Your task to perform on an android device: Open settings on Google Maps Image 0: 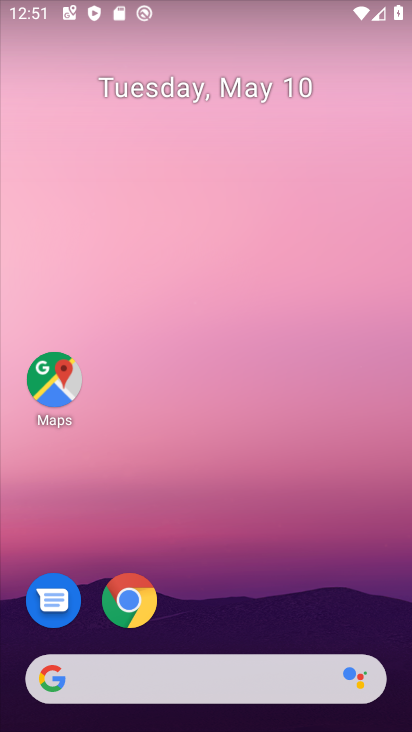
Step 0: click (60, 379)
Your task to perform on an android device: Open settings on Google Maps Image 1: 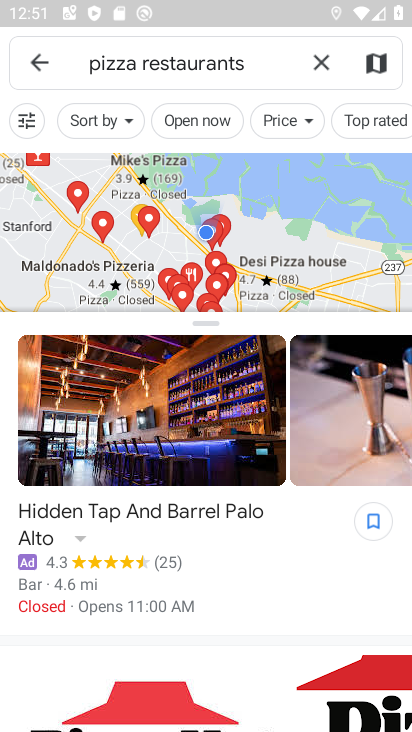
Step 1: click (137, 305)
Your task to perform on an android device: Open settings on Google Maps Image 2: 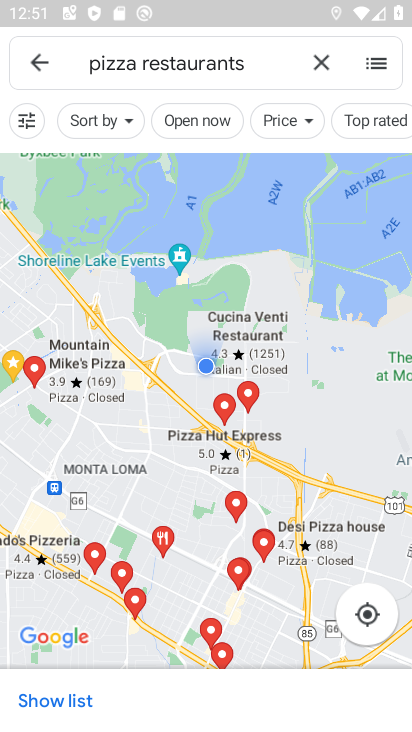
Step 2: click (49, 55)
Your task to perform on an android device: Open settings on Google Maps Image 3: 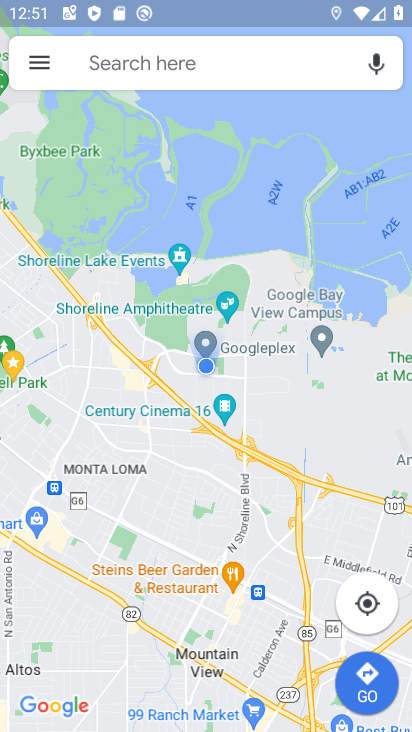
Step 3: click (49, 55)
Your task to perform on an android device: Open settings on Google Maps Image 4: 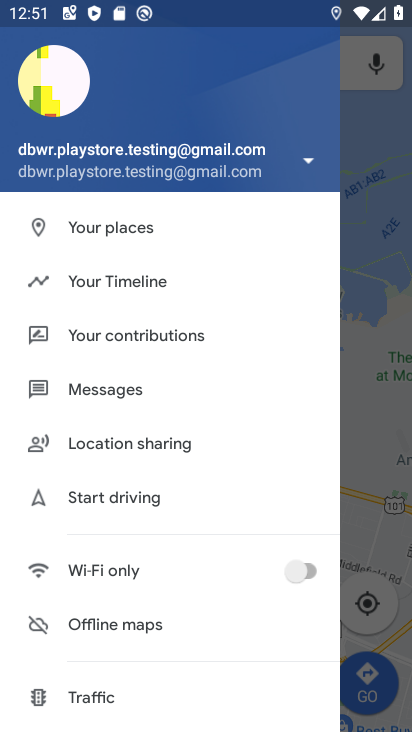
Step 4: drag from (187, 572) to (164, 295)
Your task to perform on an android device: Open settings on Google Maps Image 5: 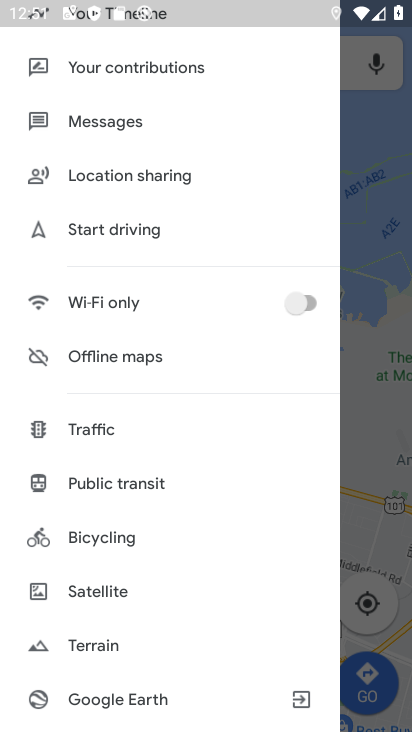
Step 5: drag from (131, 580) to (131, 390)
Your task to perform on an android device: Open settings on Google Maps Image 6: 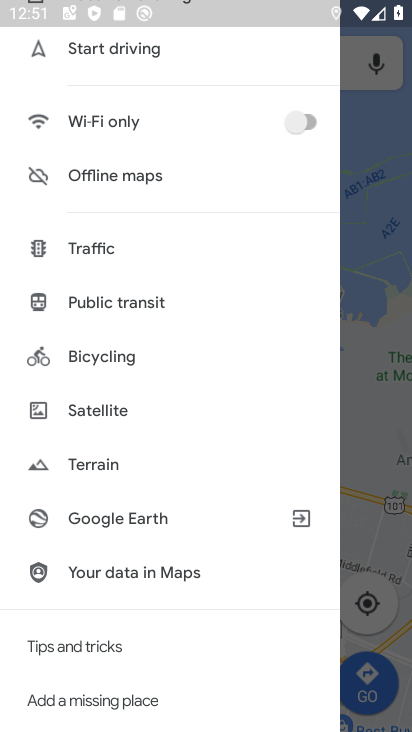
Step 6: drag from (124, 591) to (97, 307)
Your task to perform on an android device: Open settings on Google Maps Image 7: 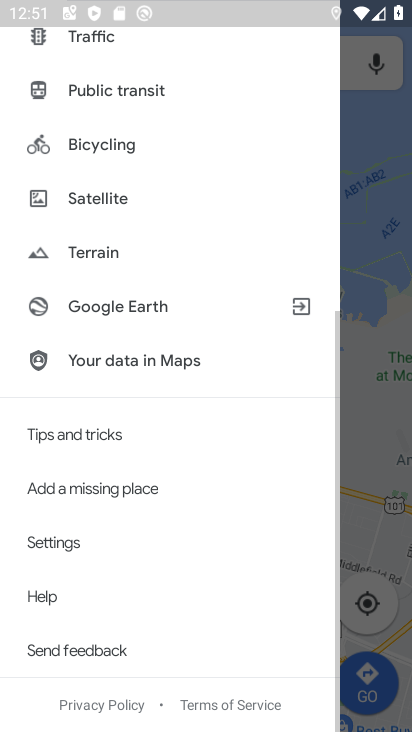
Step 7: click (78, 535)
Your task to perform on an android device: Open settings on Google Maps Image 8: 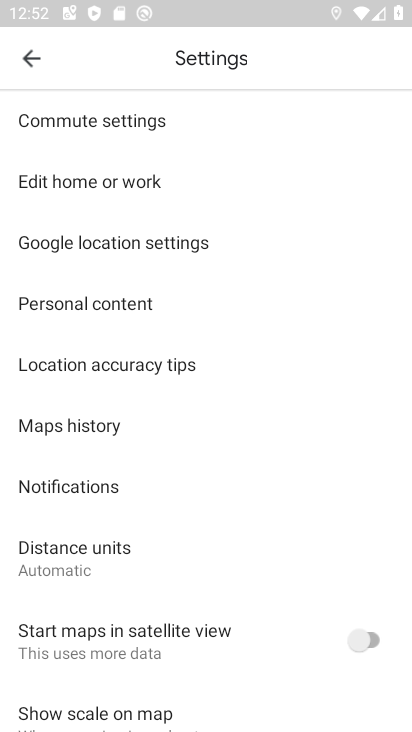
Step 8: task complete